Your task to perform on an android device: open the mobile data screen to see how much data has been used Image 0: 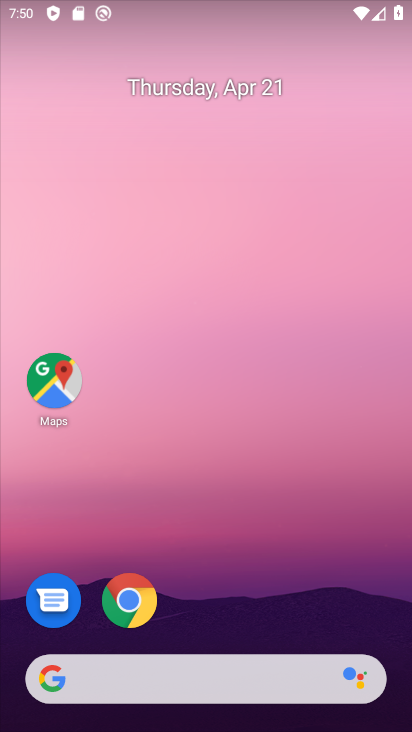
Step 0: drag from (189, 466) to (201, 219)
Your task to perform on an android device: open the mobile data screen to see how much data has been used Image 1: 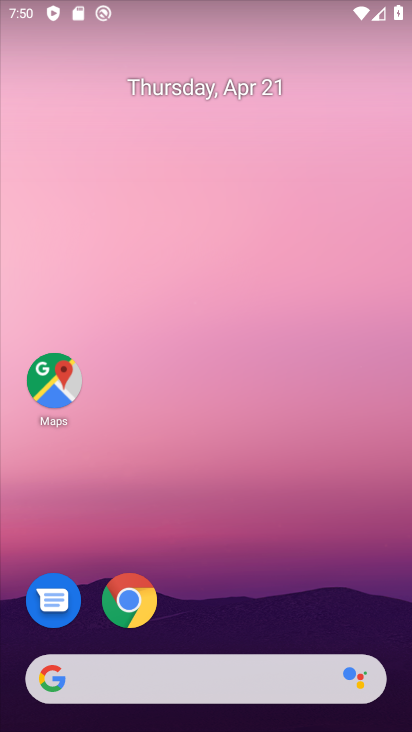
Step 1: drag from (249, 540) to (224, 4)
Your task to perform on an android device: open the mobile data screen to see how much data has been used Image 2: 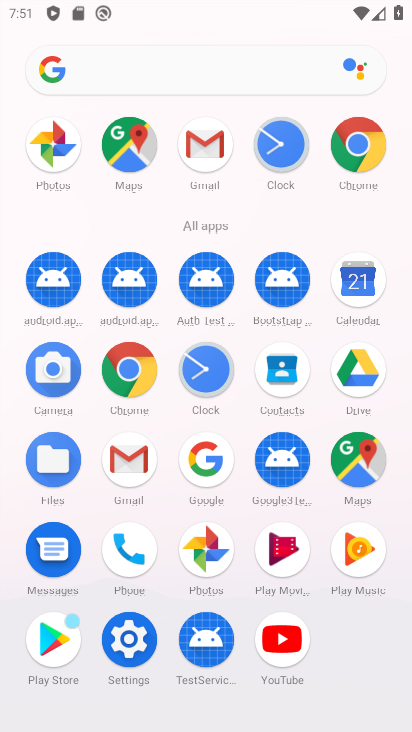
Step 2: click (120, 645)
Your task to perform on an android device: open the mobile data screen to see how much data has been used Image 3: 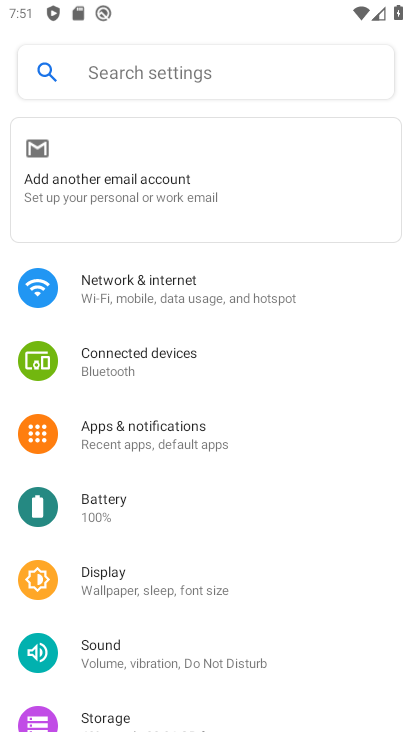
Step 3: click (108, 294)
Your task to perform on an android device: open the mobile data screen to see how much data has been used Image 4: 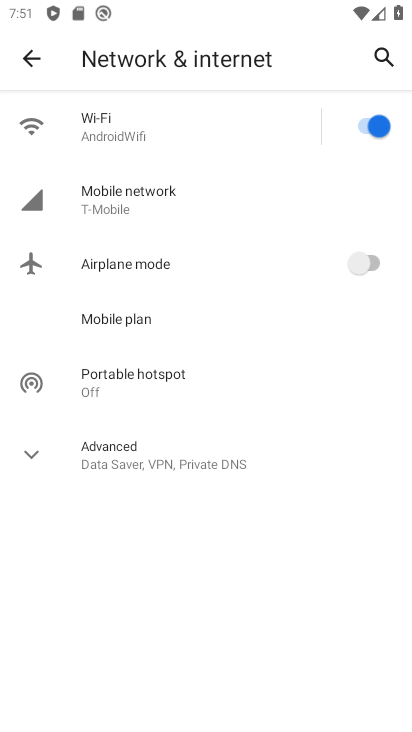
Step 4: click (136, 214)
Your task to perform on an android device: open the mobile data screen to see how much data has been used Image 5: 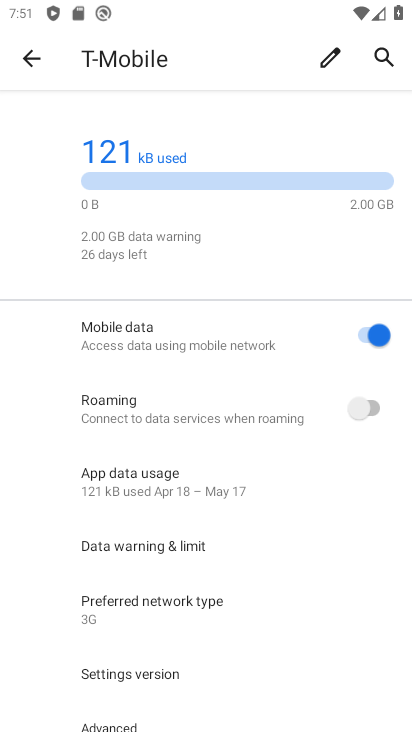
Step 5: task complete